Your task to perform on an android device: Check the news Image 0: 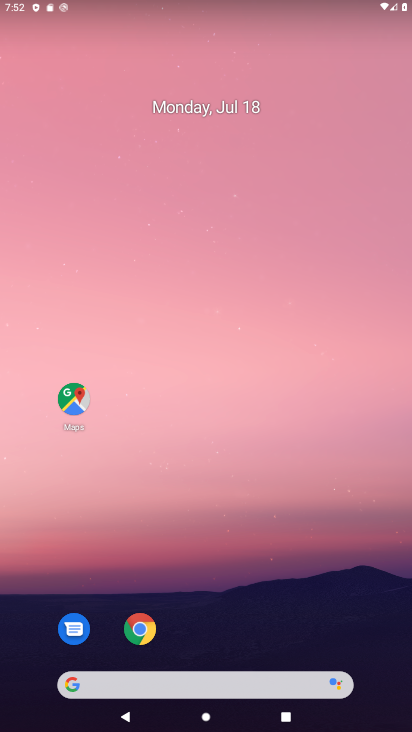
Step 0: drag from (240, 671) to (171, 38)
Your task to perform on an android device: Check the news Image 1: 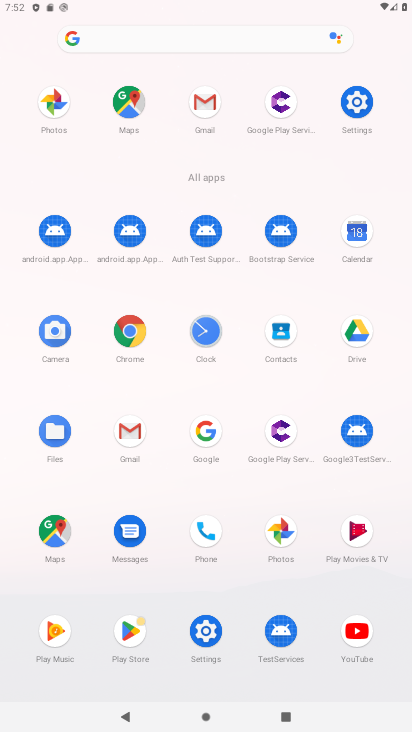
Step 1: click (130, 347)
Your task to perform on an android device: Check the news Image 2: 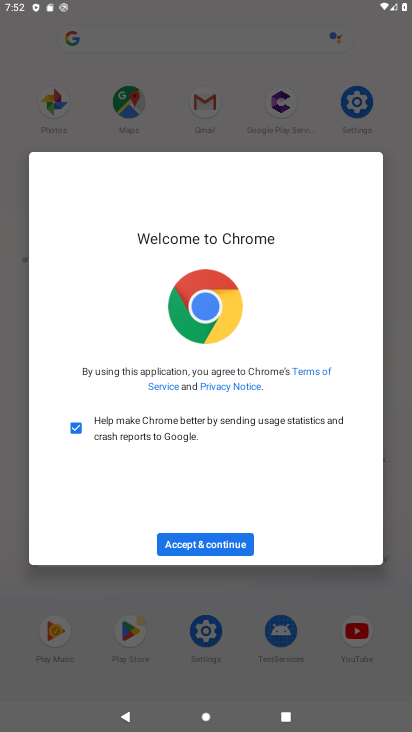
Step 2: click (245, 546)
Your task to perform on an android device: Check the news Image 3: 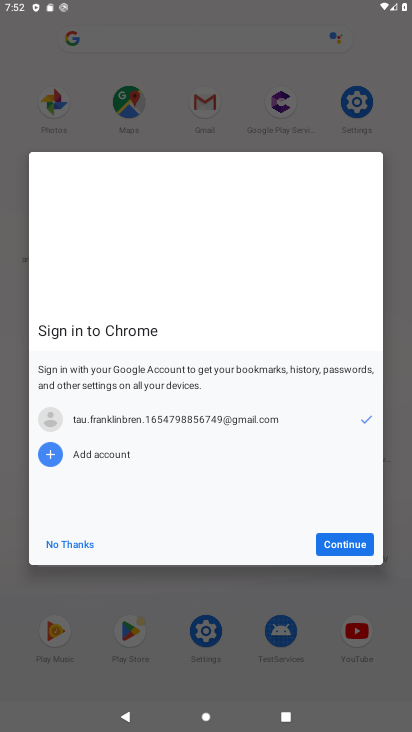
Step 3: click (346, 553)
Your task to perform on an android device: Check the news Image 4: 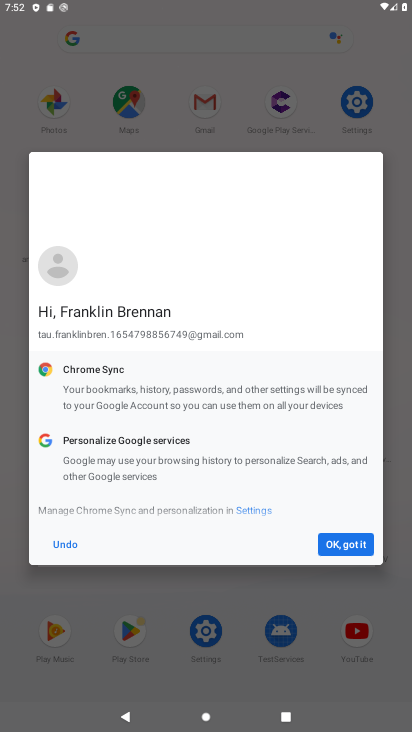
Step 4: click (346, 549)
Your task to perform on an android device: Check the news Image 5: 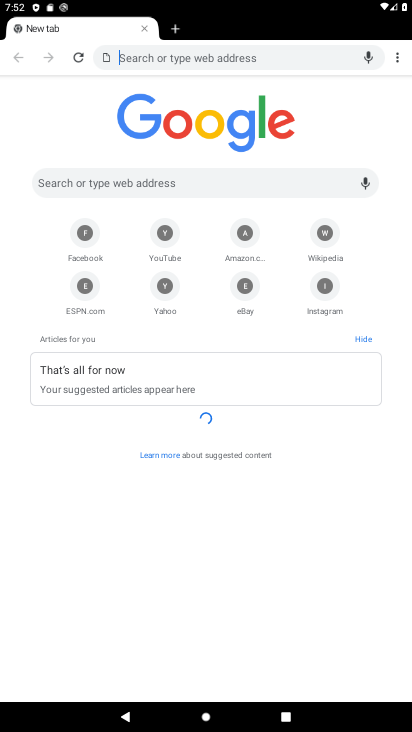
Step 5: click (192, 181)
Your task to perform on an android device: Check the news Image 6: 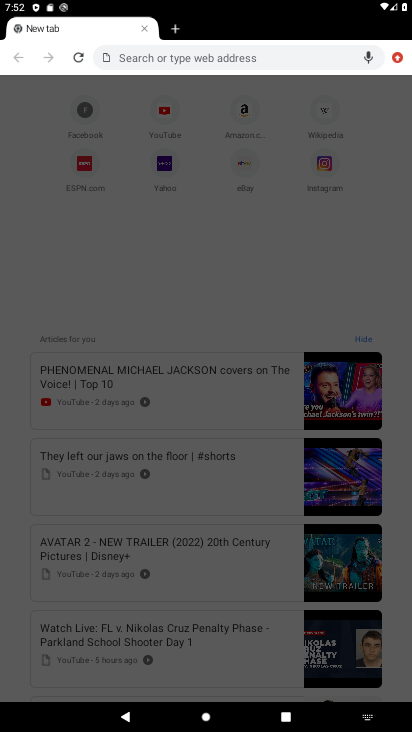
Step 6: type "news"
Your task to perform on an android device: Check the news Image 7: 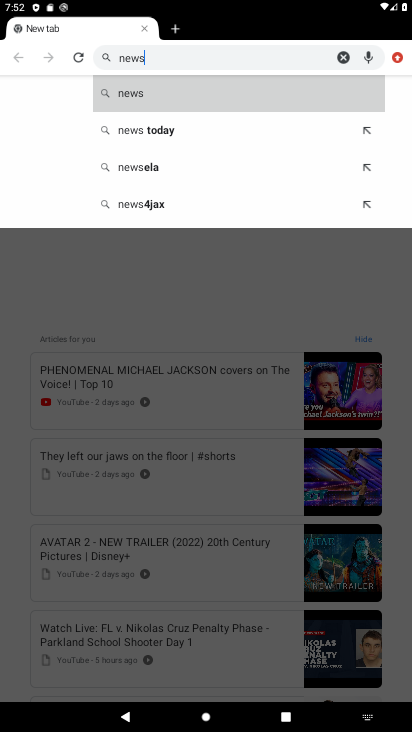
Step 7: type ""
Your task to perform on an android device: Check the news Image 8: 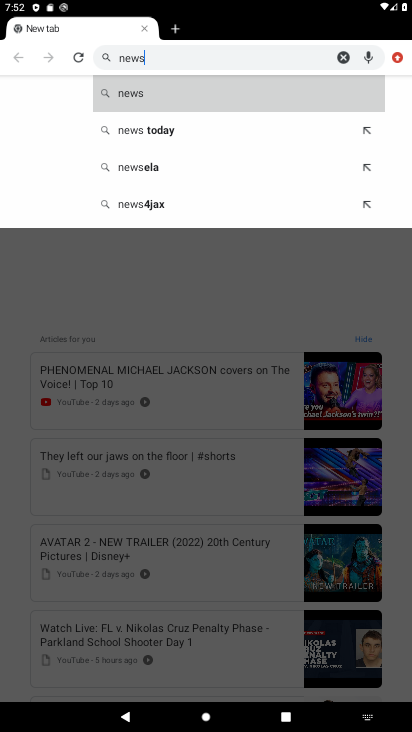
Step 8: click (219, 112)
Your task to perform on an android device: Check the news Image 9: 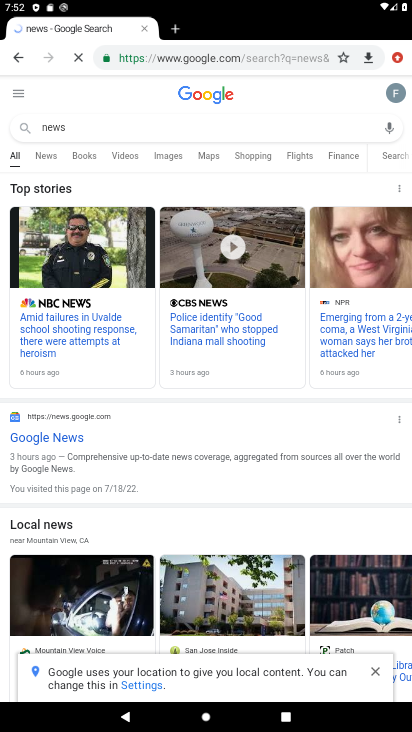
Step 9: drag from (168, 521) to (161, 307)
Your task to perform on an android device: Check the news Image 10: 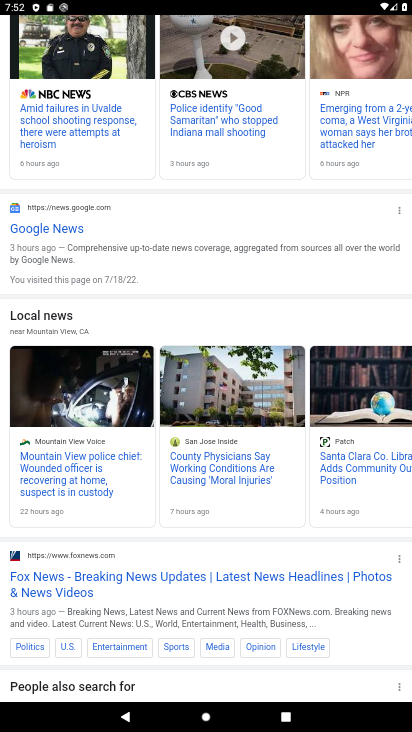
Step 10: click (43, 221)
Your task to perform on an android device: Check the news Image 11: 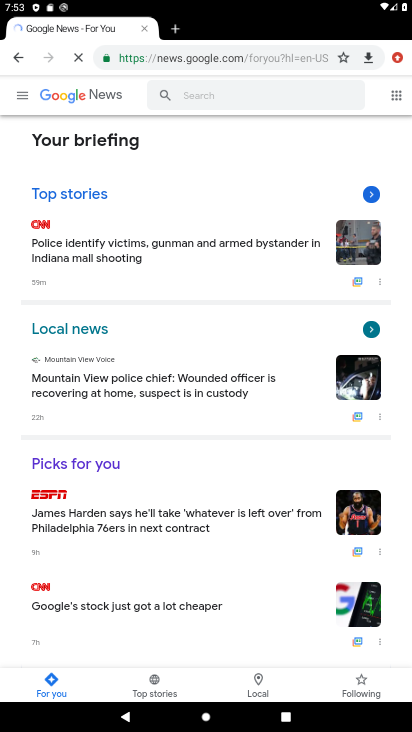
Step 11: task complete